Your task to perform on an android device: Search for pizza restaurants on Maps Image 0: 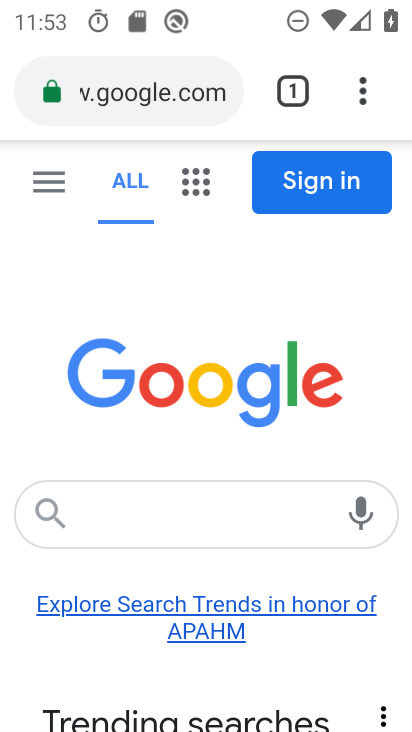
Step 0: press home button
Your task to perform on an android device: Search for pizza restaurants on Maps Image 1: 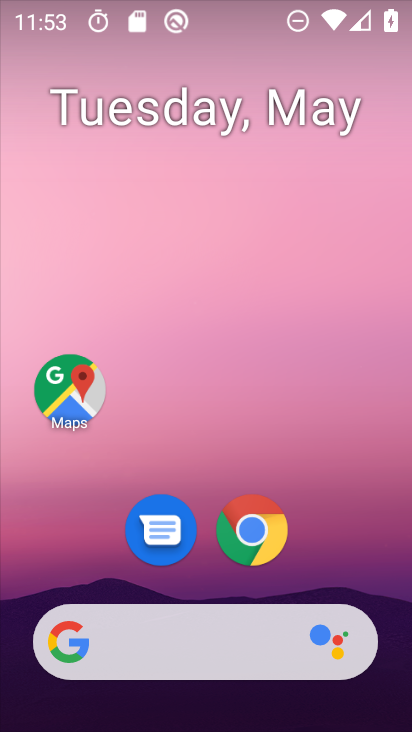
Step 1: drag from (273, 580) to (339, 74)
Your task to perform on an android device: Search for pizza restaurants on Maps Image 2: 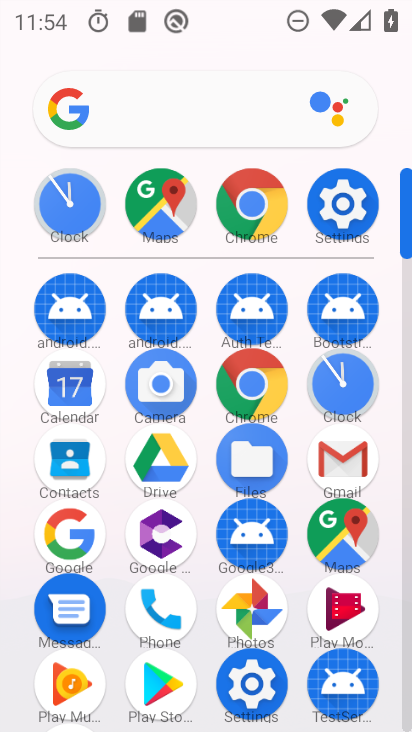
Step 2: click (359, 539)
Your task to perform on an android device: Search for pizza restaurants on Maps Image 3: 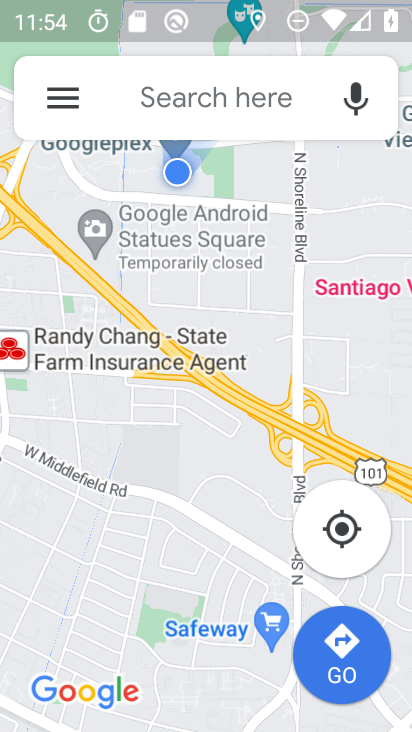
Step 3: click (277, 119)
Your task to perform on an android device: Search for pizza restaurants on Maps Image 4: 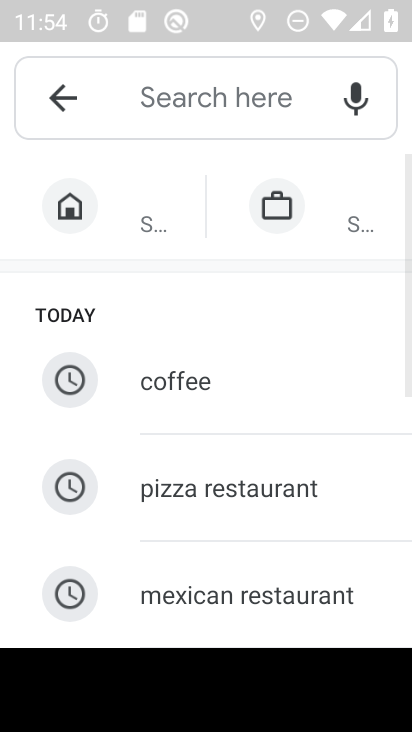
Step 4: click (206, 470)
Your task to perform on an android device: Search for pizza restaurants on Maps Image 5: 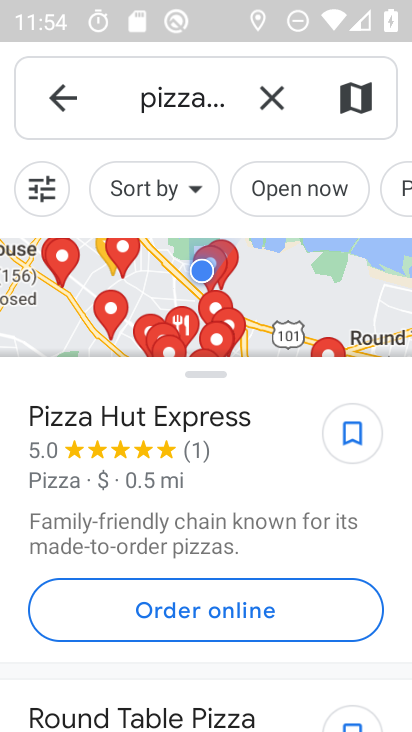
Step 5: task complete